Your task to perform on an android device: stop showing notifications on the lock screen Image 0: 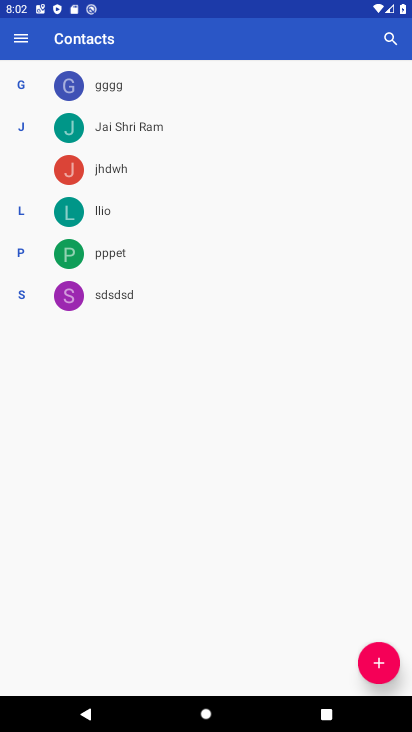
Step 0: drag from (200, 16) to (186, 606)
Your task to perform on an android device: stop showing notifications on the lock screen Image 1: 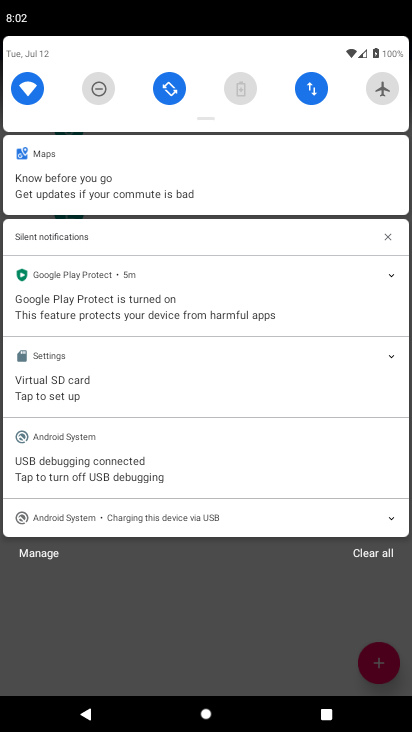
Step 1: drag from (194, 63) to (191, 617)
Your task to perform on an android device: stop showing notifications on the lock screen Image 2: 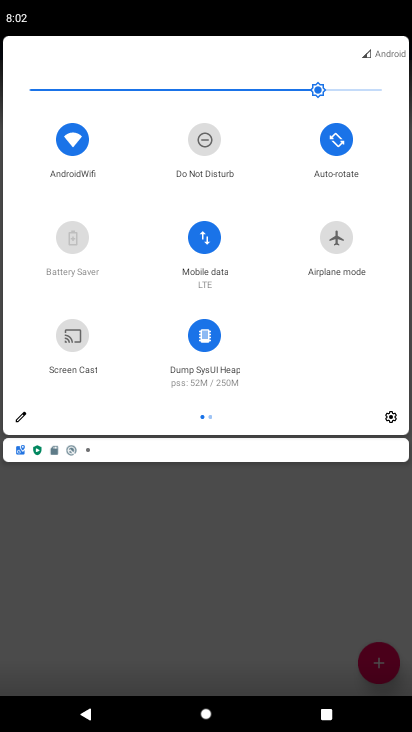
Step 2: click (387, 416)
Your task to perform on an android device: stop showing notifications on the lock screen Image 3: 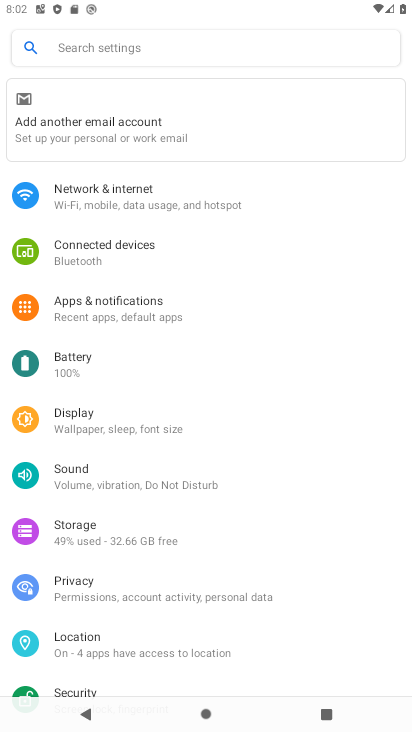
Step 3: click (161, 289)
Your task to perform on an android device: stop showing notifications on the lock screen Image 4: 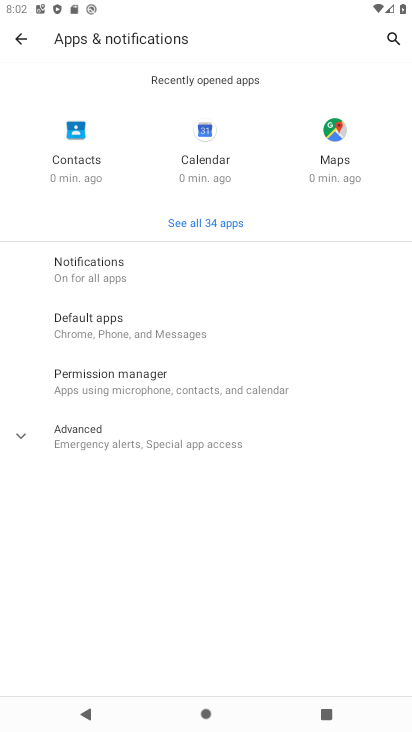
Step 4: click (124, 281)
Your task to perform on an android device: stop showing notifications on the lock screen Image 5: 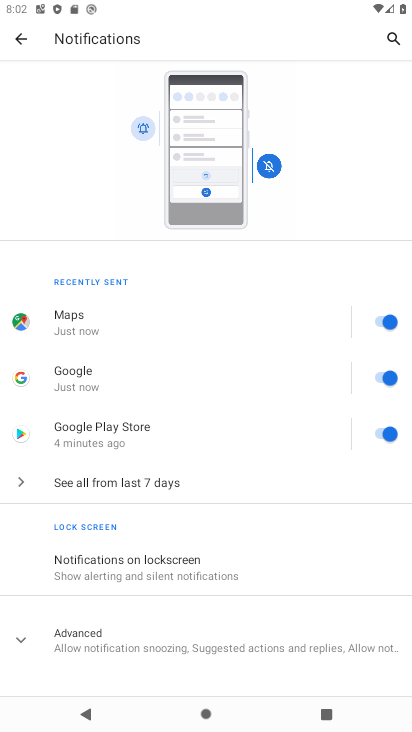
Step 5: click (138, 574)
Your task to perform on an android device: stop showing notifications on the lock screen Image 6: 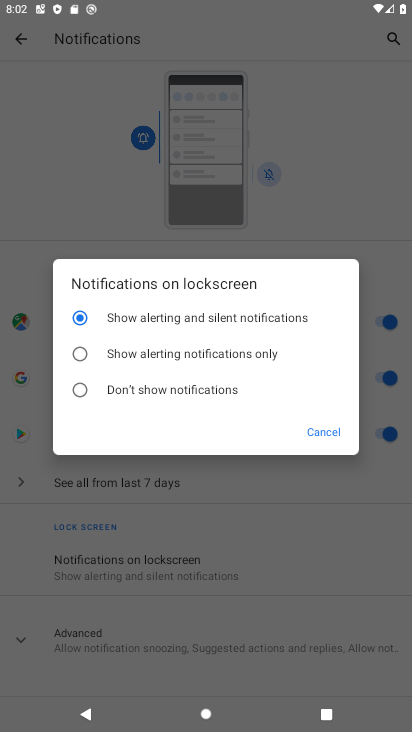
Step 6: click (151, 393)
Your task to perform on an android device: stop showing notifications on the lock screen Image 7: 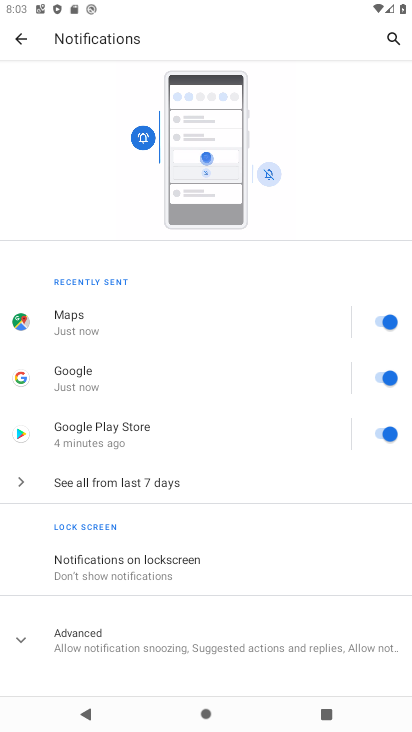
Step 7: task complete